Your task to perform on an android device: find snoozed emails in the gmail app Image 0: 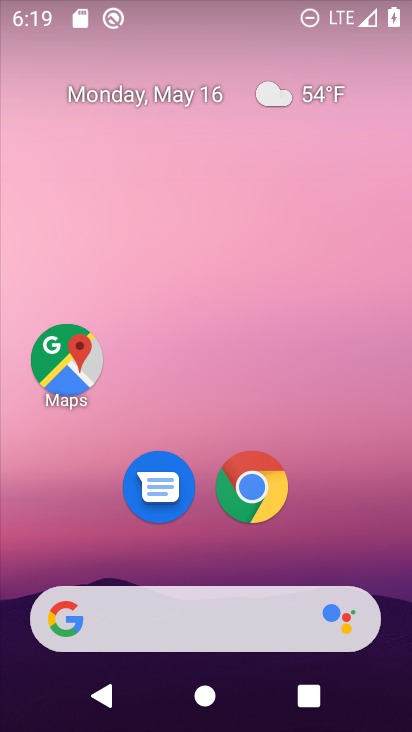
Step 0: drag from (205, 595) to (252, 171)
Your task to perform on an android device: find snoozed emails in the gmail app Image 1: 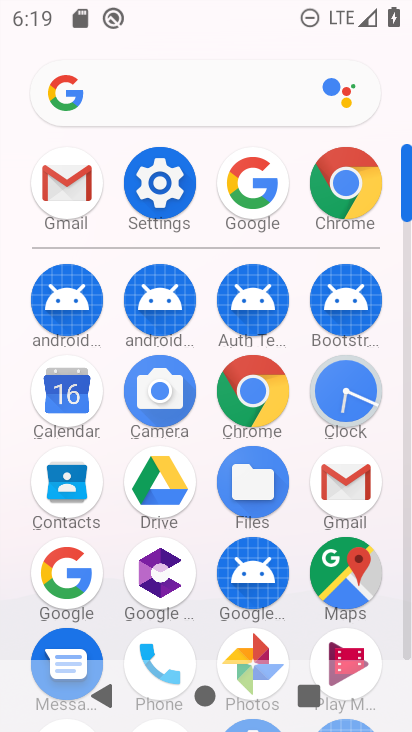
Step 1: click (56, 181)
Your task to perform on an android device: find snoozed emails in the gmail app Image 2: 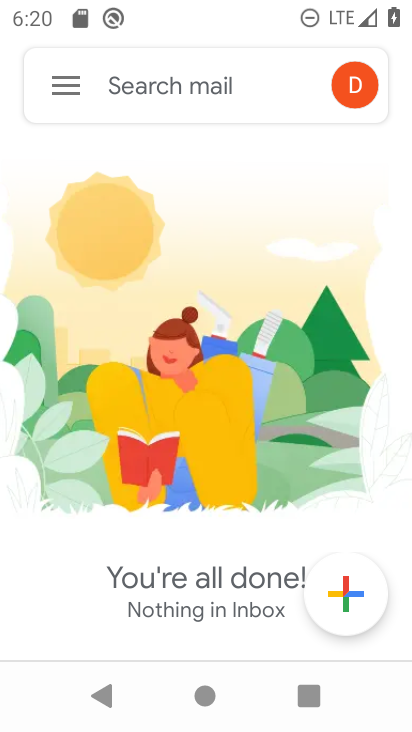
Step 2: task complete